Your task to perform on an android device: Show me productivity apps on the Play Store Image 0: 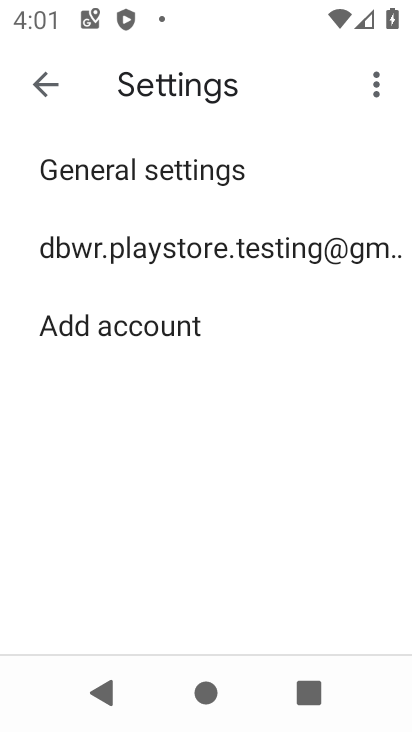
Step 0: press home button
Your task to perform on an android device: Show me productivity apps on the Play Store Image 1: 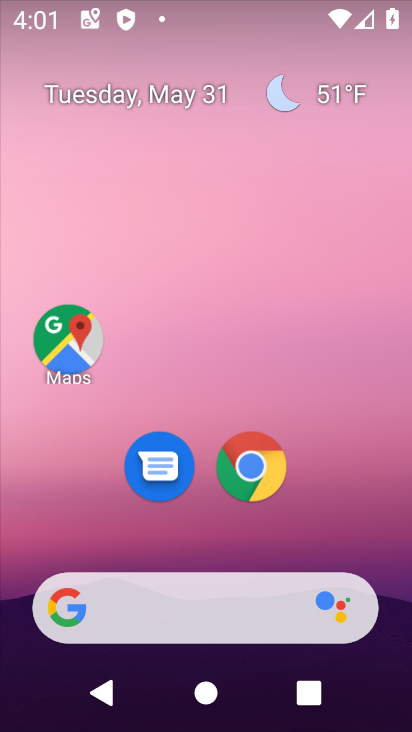
Step 1: drag from (201, 548) to (210, 48)
Your task to perform on an android device: Show me productivity apps on the Play Store Image 2: 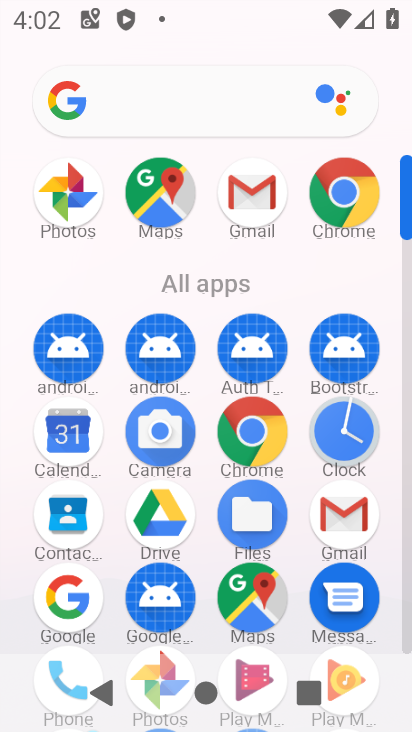
Step 2: drag from (201, 556) to (194, 145)
Your task to perform on an android device: Show me productivity apps on the Play Store Image 3: 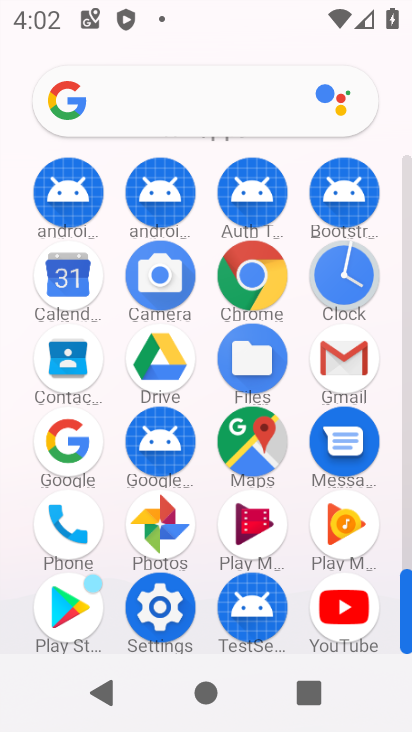
Step 3: click (55, 600)
Your task to perform on an android device: Show me productivity apps on the Play Store Image 4: 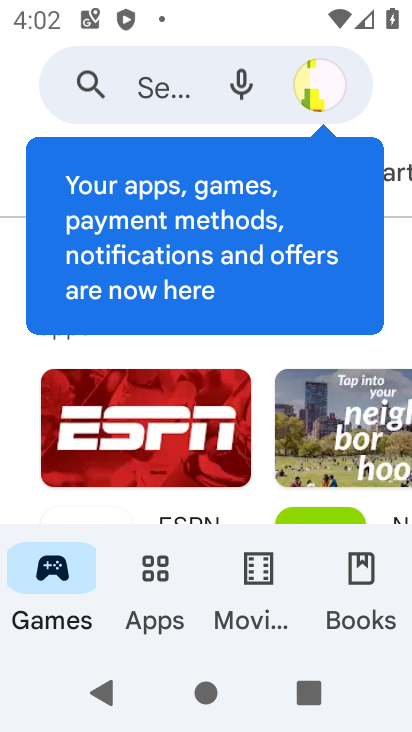
Step 4: click (152, 567)
Your task to perform on an android device: Show me productivity apps on the Play Store Image 5: 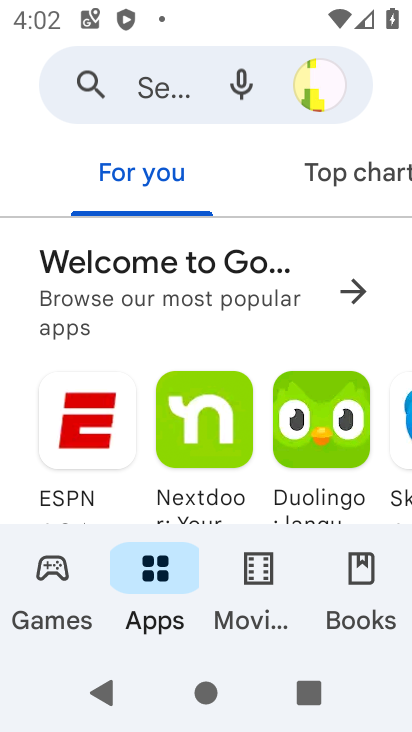
Step 5: drag from (375, 187) to (10, 199)
Your task to perform on an android device: Show me productivity apps on the Play Store Image 6: 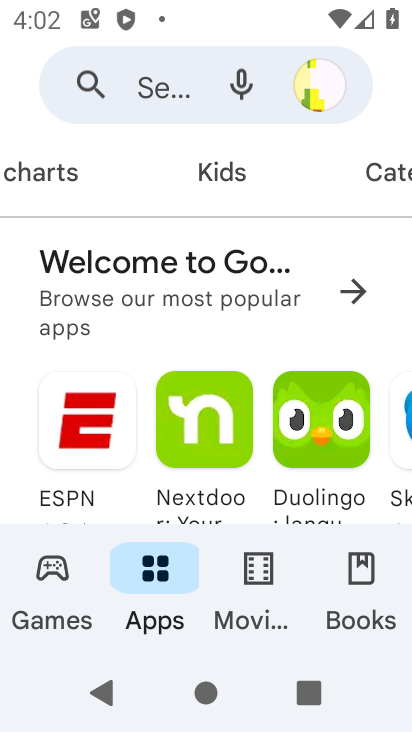
Step 6: click (379, 187)
Your task to perform on an android device: Show me productivity apps on the Play Store Image 7: 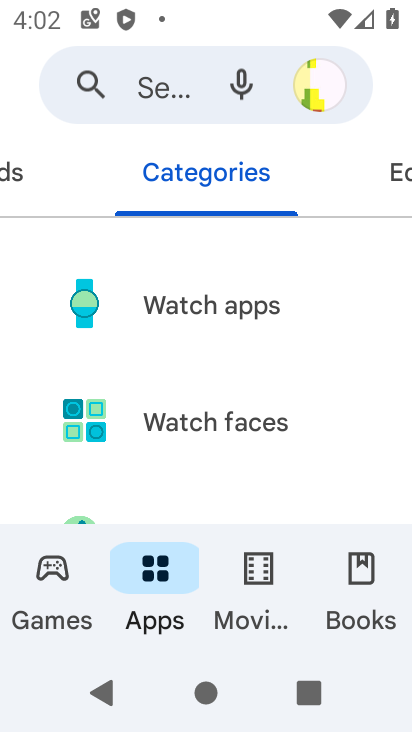
Step 7: drag from (198, 501) to (198, 138)
Your task to perform on an android device: Show me productivity apps on the Play Store Image 8: 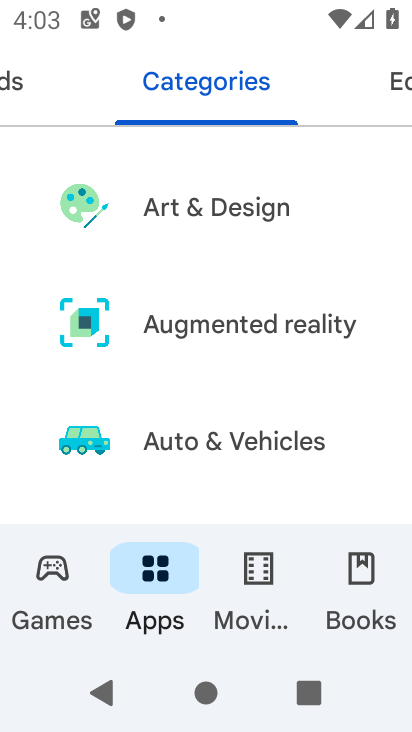
Step 8: drag from (215, 508) to (180, 119)
Your task to perform on an android device: Show me productivity apps on the Play Store Image 9: 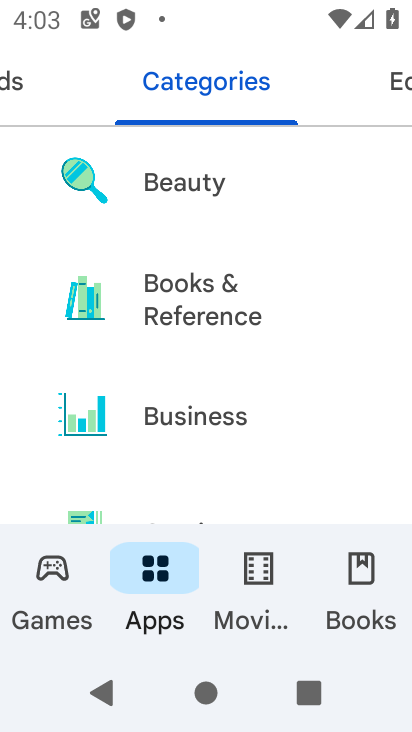
Step 9: drag from (213, 503) to (210, 85)
Your task to perform on an android device: Show me productivity apps on the Play Store Image 10: 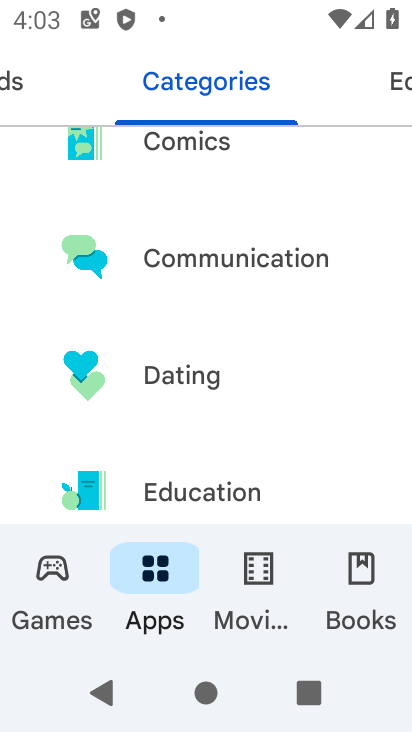
Step 10: drag from (292, 502) to (279, 96)
Your task to perform on an android device: Show me productivity apps on the Play Store Image 11: 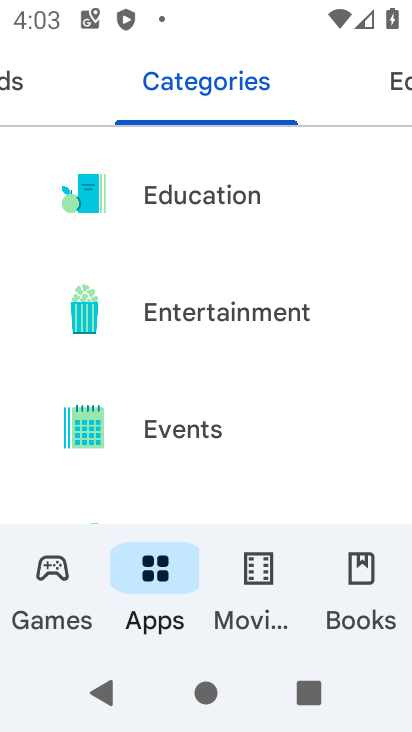
Step 11: drag from (234, 503) to (232, 138)
Your task to perform on an android device: Show me productivity apps on the Play Store Image 12: 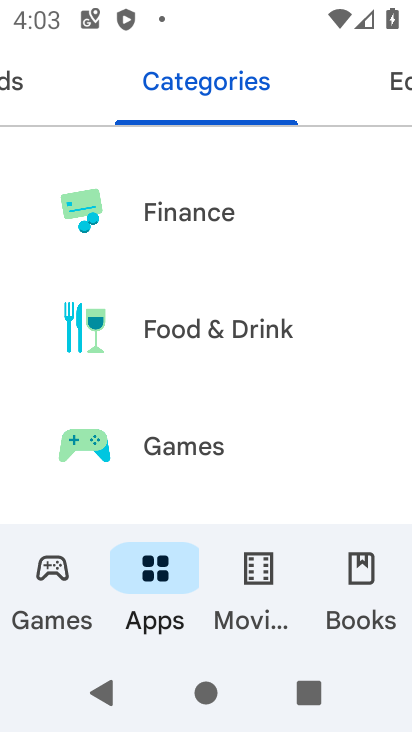
Step 12: drag from (218, 501) to (230, 232)
Your task to perform on an android device: Show me productivity apps on the Play Store Image 13: 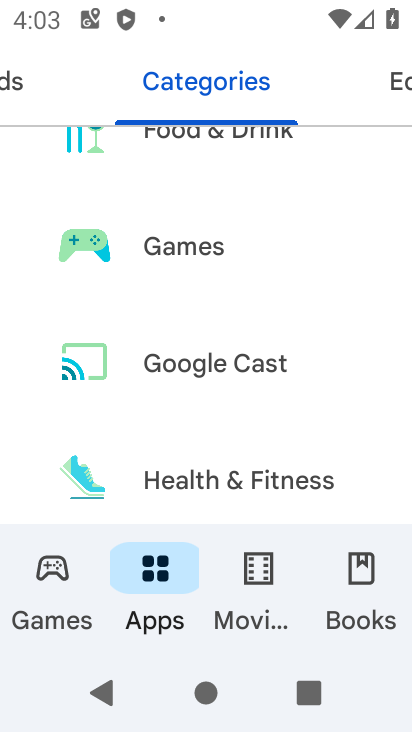
Step 13: click (230, 178)
Your task to perform on an android device: Show me productivity apps on the Play Store Image 14: 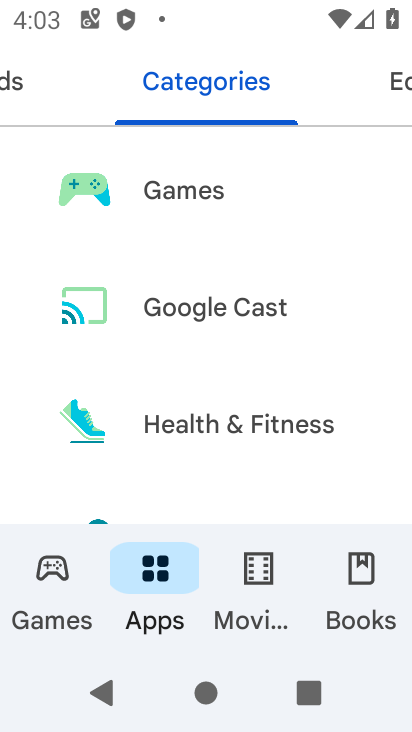
Step 14: drag from (236, 508) to (228, 114)
Your task to perform on an android device: Show me productivity apps on the Play Store Image 15: 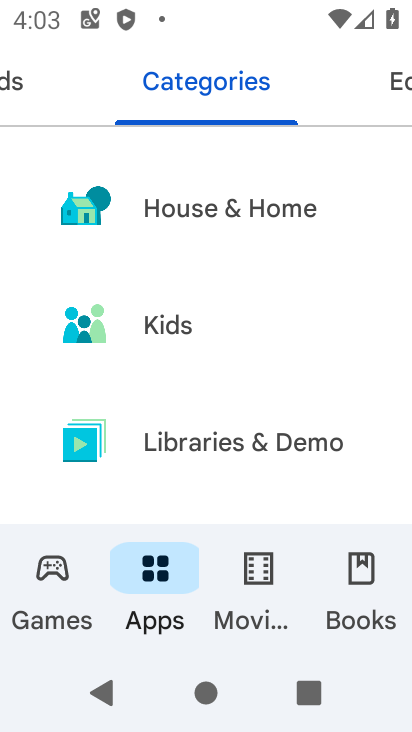
Step 15: drag from (238, 511) to (228, 89)
Your task to perform on an android device: Show me productivity apps on the Play Store Image 16: 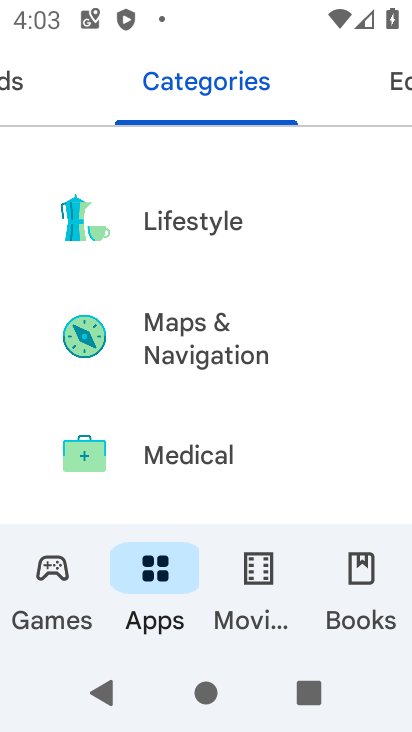
Step 16: drag from (234, 508) to (247, 74)
Your task to perform on an android device: Show me productivity apps on the Play Store Image 17: 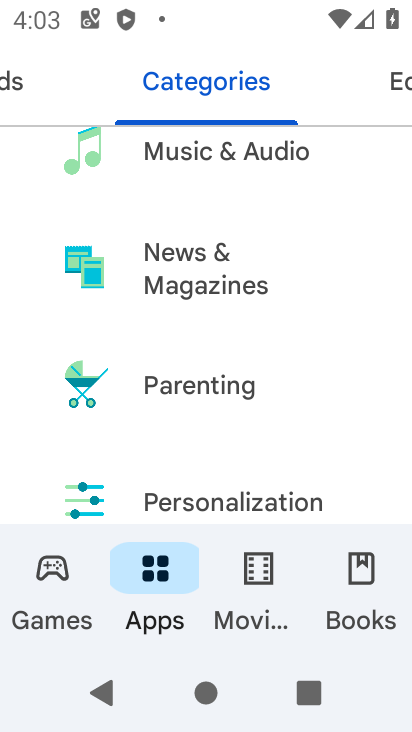
Step 17: drag from (290, 495) to (295, 108)
Your task to perform on an android device: Show me productivity apps on the Play Store Image 18: 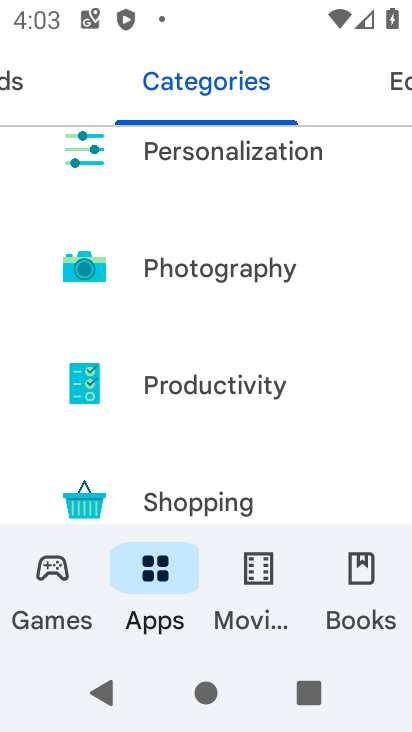
Step 18: click (298, 387)
Your task to perform on an android device: Show me productivity apps on the Play Store Image 19: 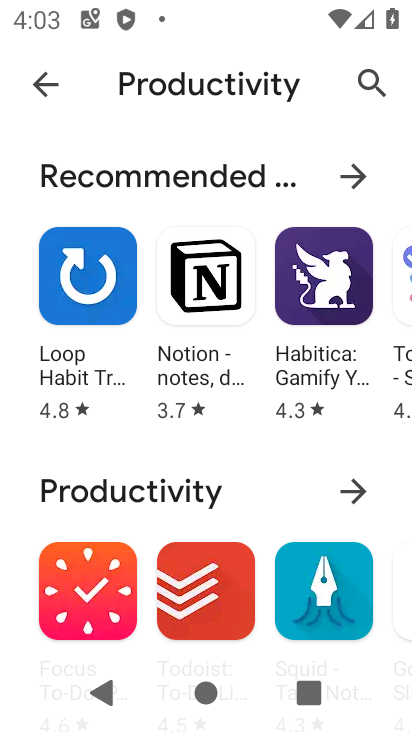
Step 19: task complete